Your task to perform on an android device: turn smart compose on in the gmail app Image 0: 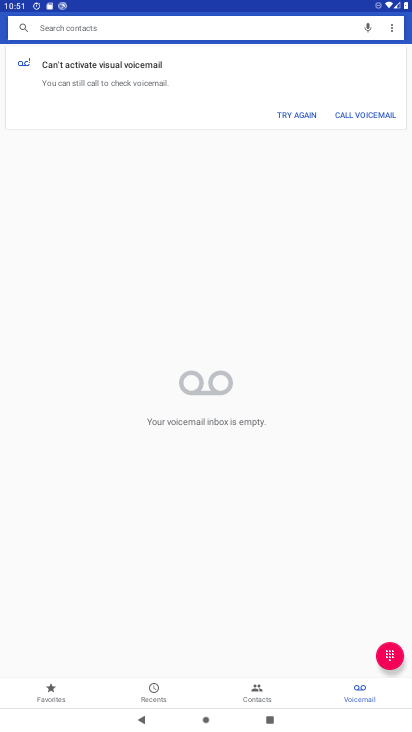
Step 0: press home button
Your task to perform on an android device: turn smart compose on in the gmail app Image 1: 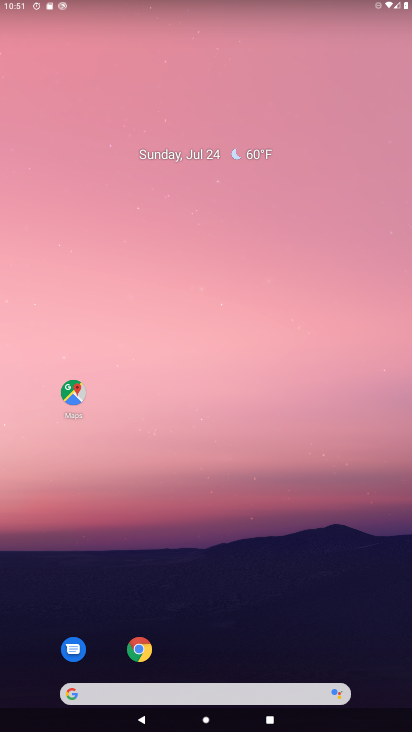
Step 1: drag from (329, 591) to (243, 66)
Your task to perform on an android device: turn smart compose on in the gmail app Image 2: 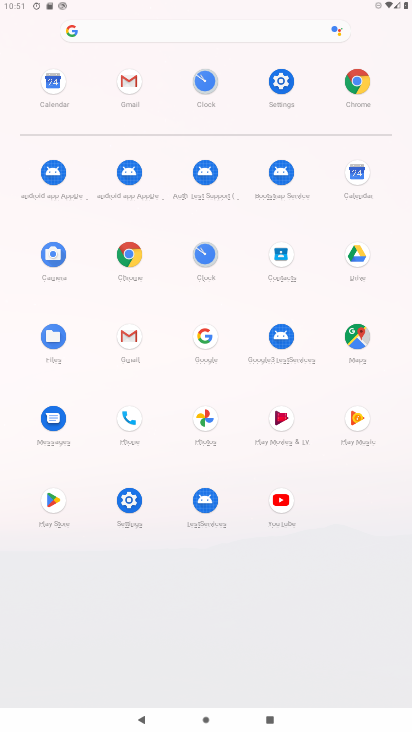
Step 2: click (134, 78)
Your task to perform on an android device: turn smart compose on in the gmail app Image 3: 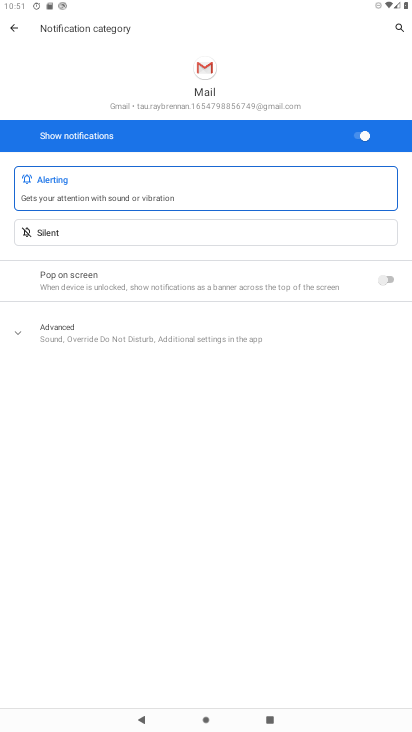
Step 3: click (13, 22)
Your task to perform on an android device: turn smart compose on in the gmail app Image 4: 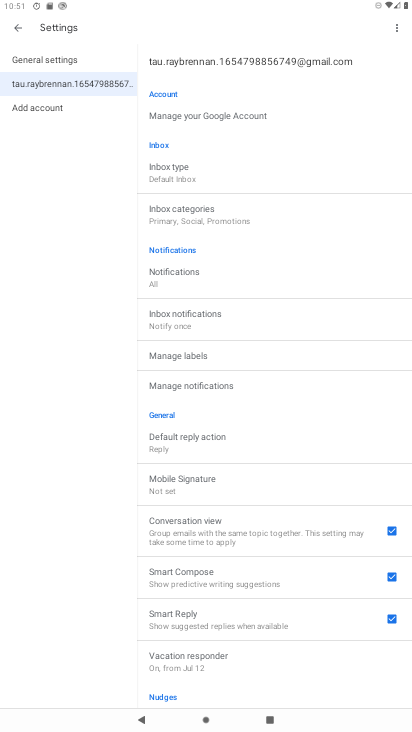
Step 4: task complete